Your task to perform on an android device: open app "Facebook Lite" (install if not already installed) Image 0: 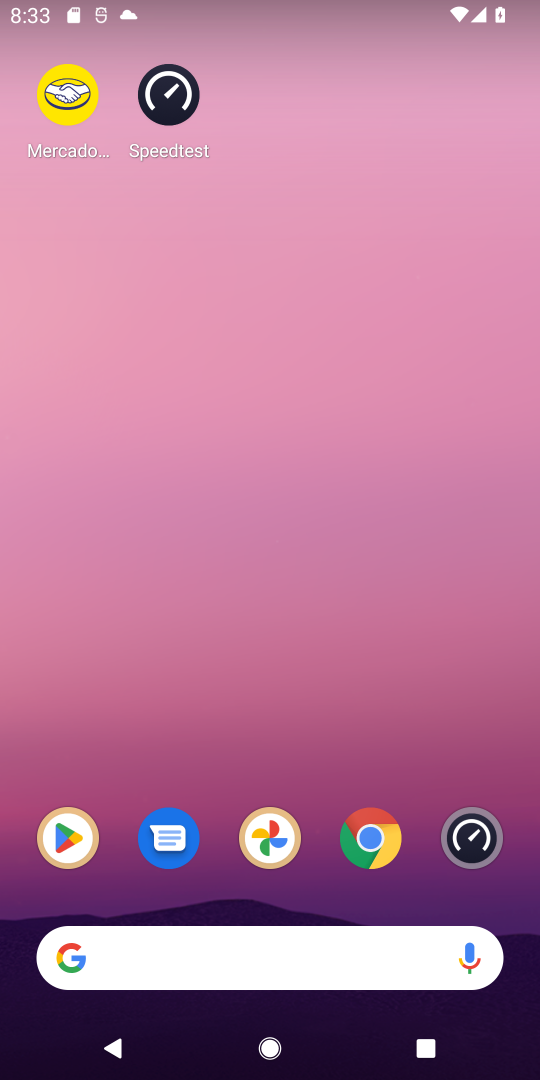
Step 0: press home button
Your task to perform on an android device: open app "Facebook Lite" (install if not already installed) Image 1: 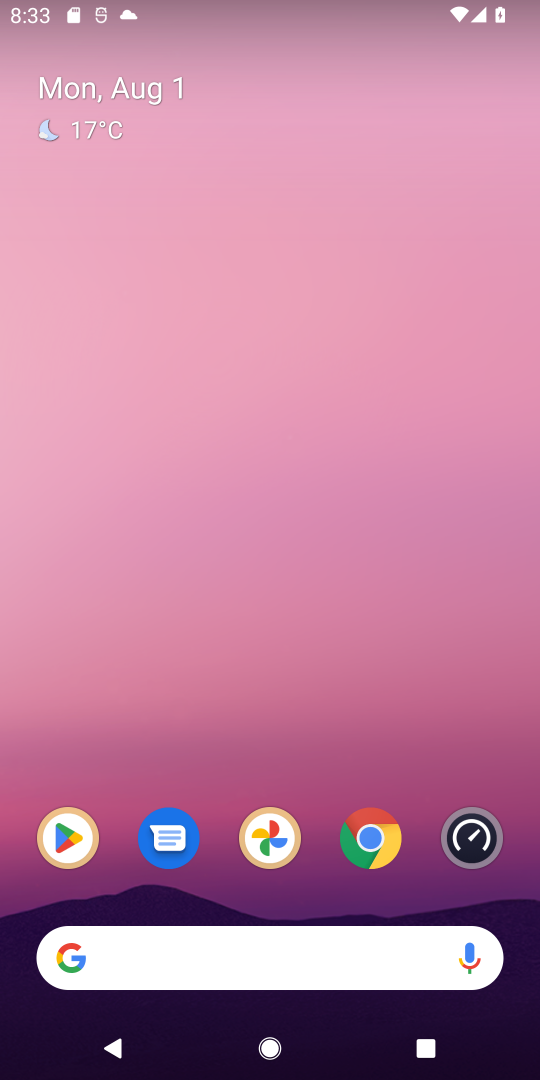
Step 1: click (83, 850)
Your task to perform on an android device: open app "Facebook Lite" (install if not already installed) Image 2: 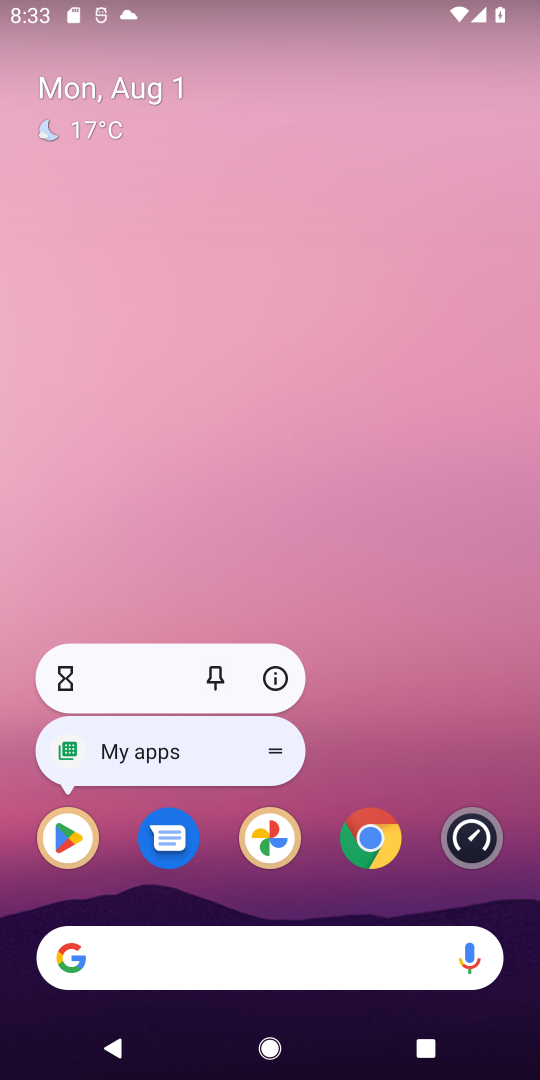
Step 2: click (64, 842)
Your task to perform on an android device: open app "Facebook Lite" (install if not already installed) Image 3: 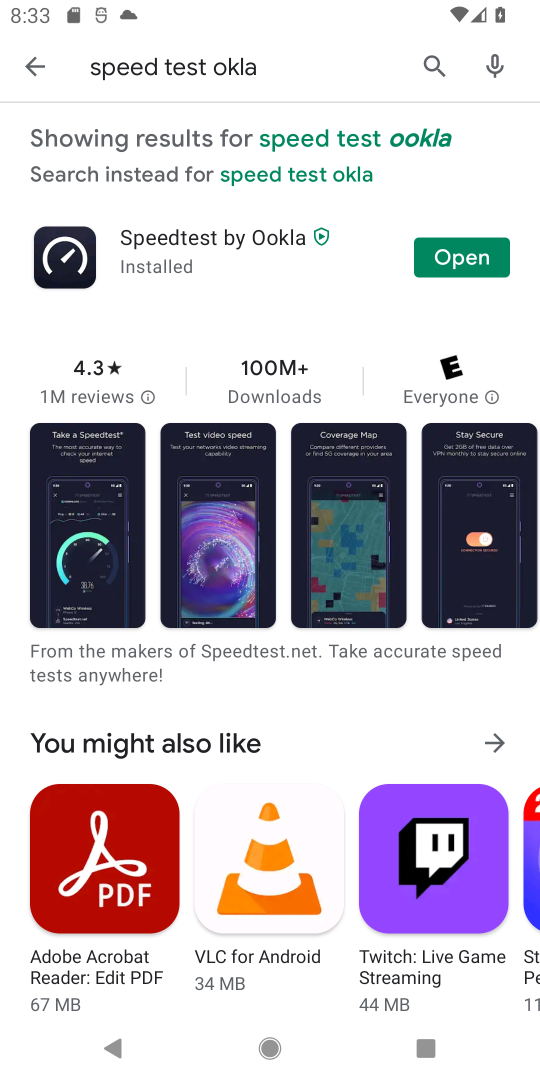
Step 3: click (429, 67)
Your task to perform on an android device: open app "Facebook Lite" (install if not already installed) Image 4: 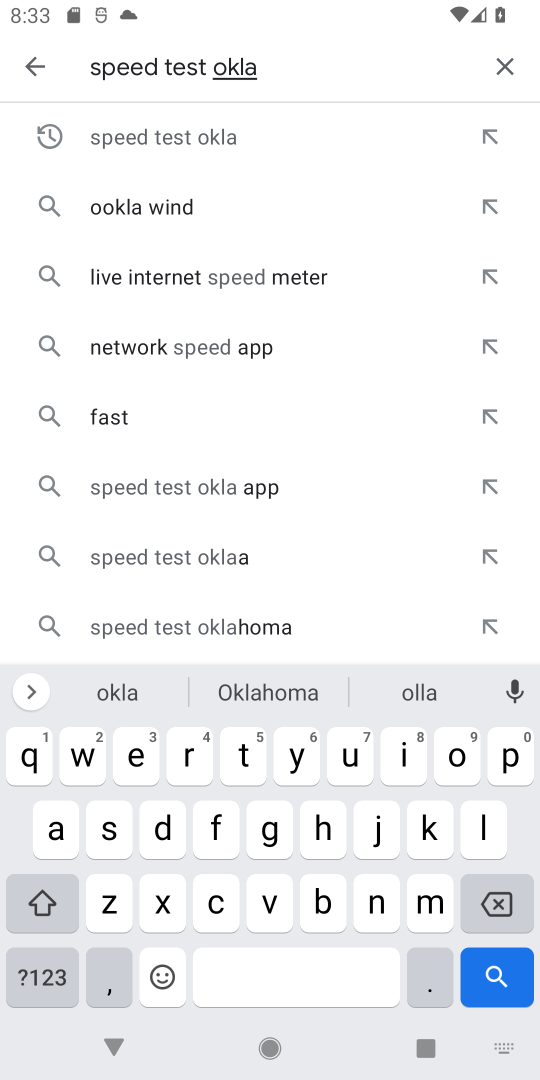
Step 4: click (511, 71)
Your task to perform on an android device: open app "Facebook Lite" (install if not already installed) Image 5: 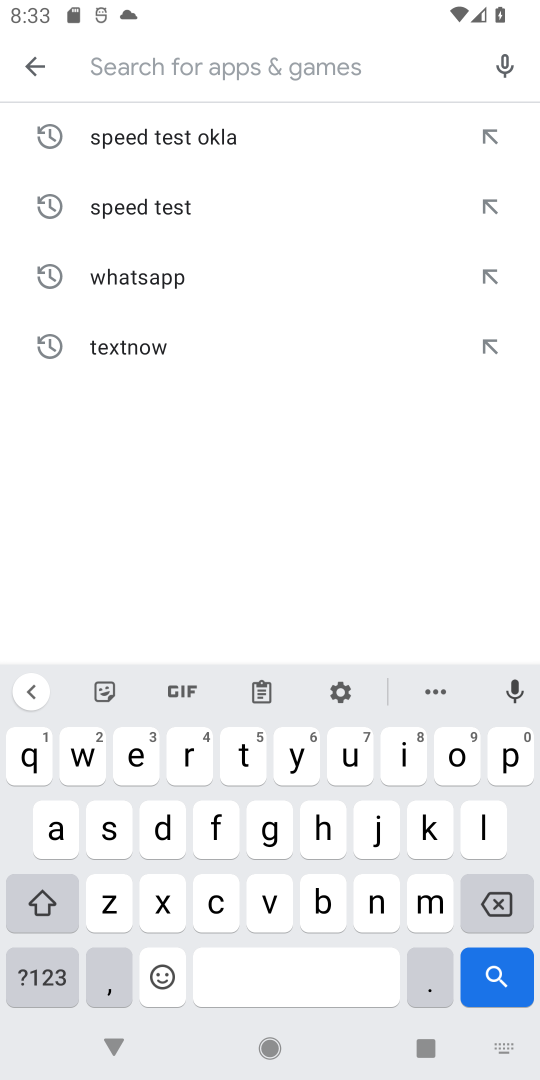
Step 5: type "facebook lite"
Your task to perform on an android device: open app "Facebook Lite" (install if not already installed) Image 6: 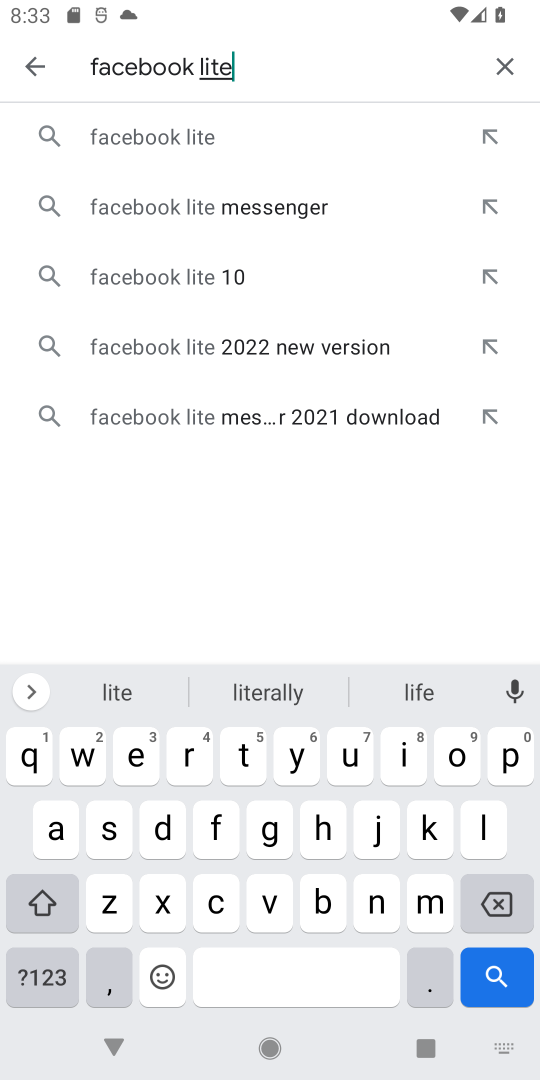
Step 6: click (274, 130)
Your task to perform on an android device: open app "Facebook Lite" (install if not already installed) Image 7: 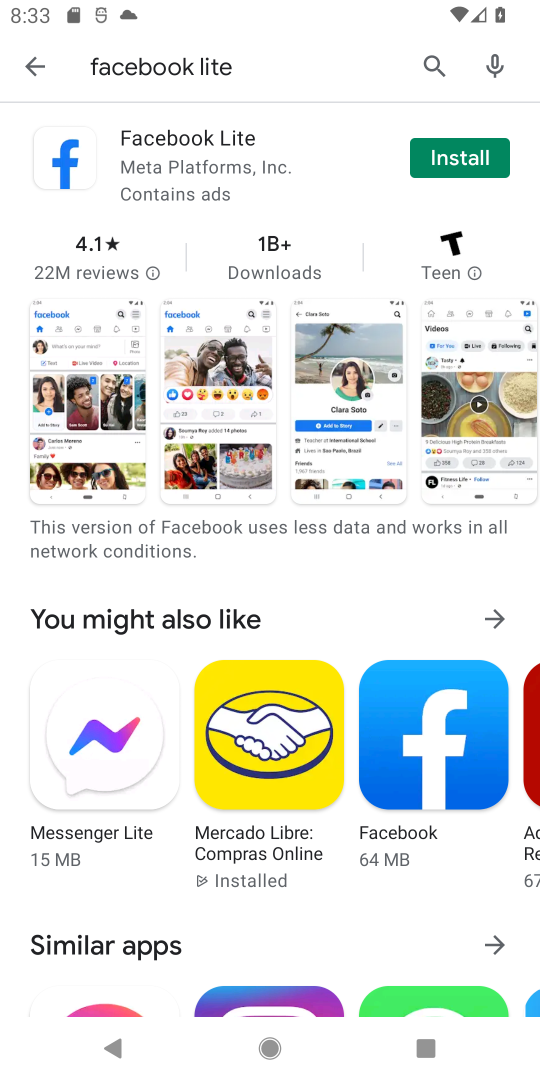
Step 7: click (437, 140)
Your task to perform on an android device: open app "Facebook Lite" (install if not already installed) Image 8: 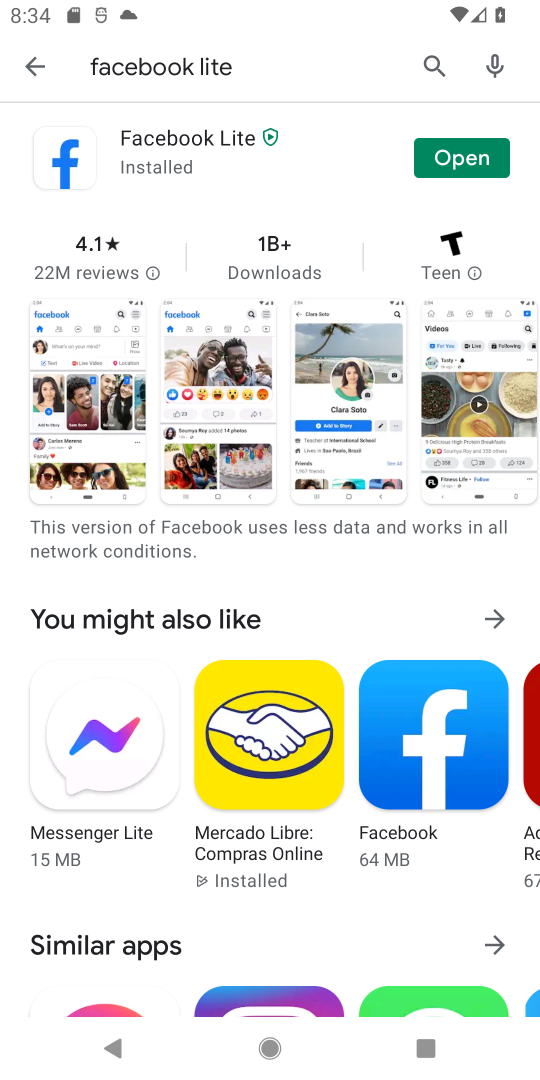
Step 8: click (438, 142)
Your task to perform on an android device: open app "Facebook Lite" (install if not already installed) Image 9: 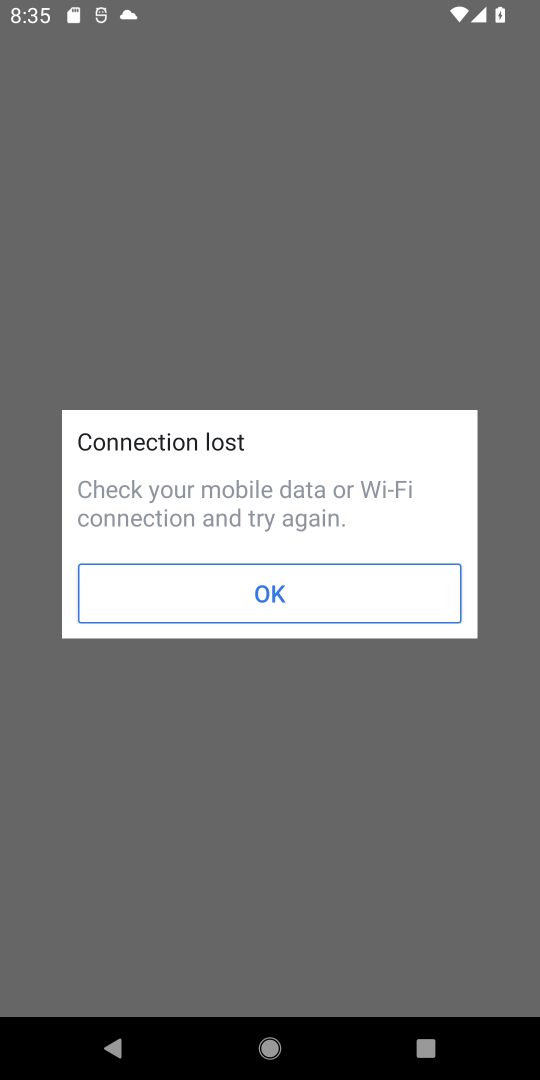
Step 9: click (360, 597)
Your task to perform on an android device: open app "Facebook Lite" (install if not already installed) Image 10: 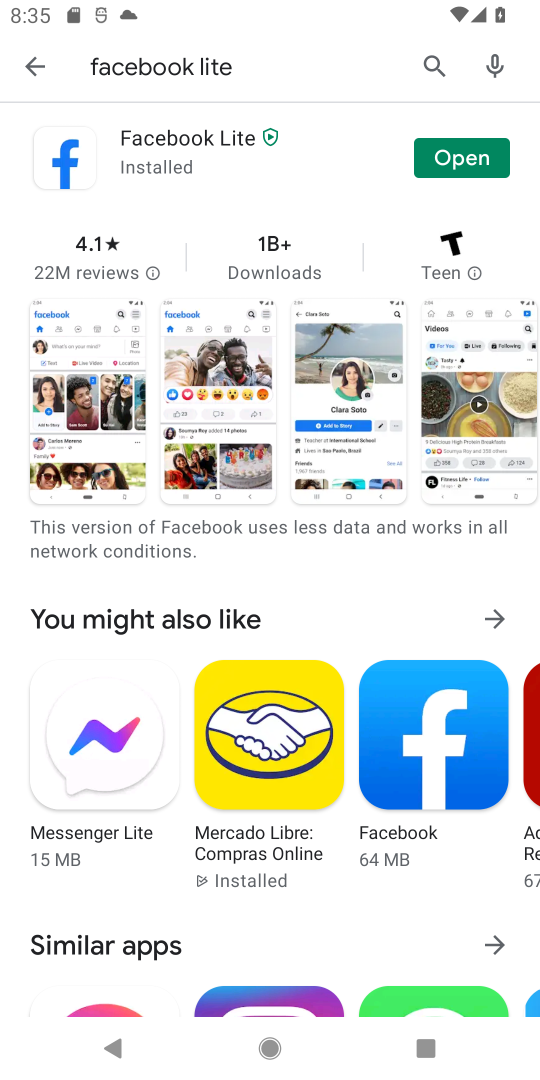
Step 10: click (439, 168)
Your task to perform on an android device: open app "Facebook Lite" (install if not already installed) Image 11: 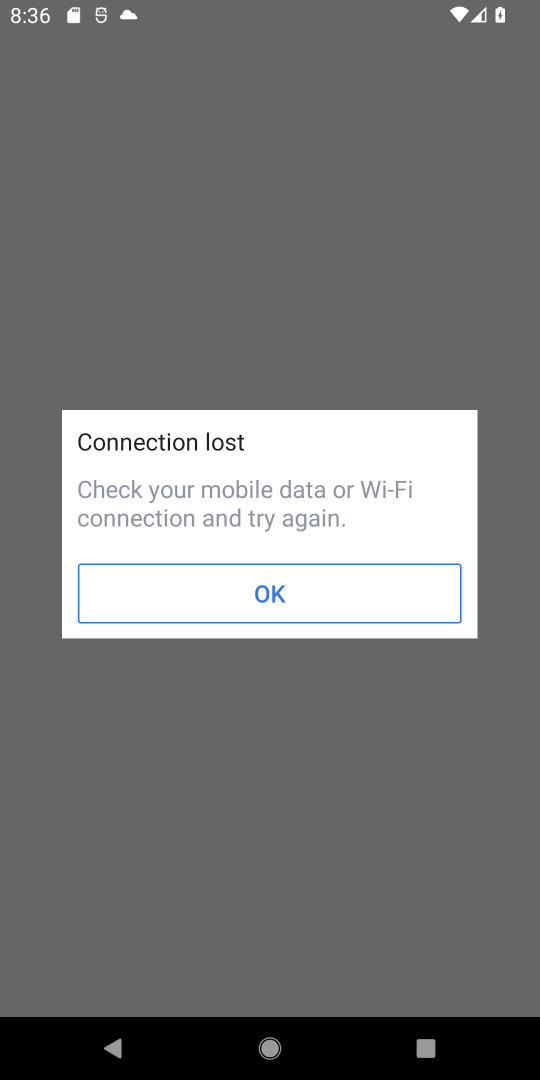
Step 11: task complete